Your task to perform on an android device: Clear the shopping cart on target.com. Search for "razer blade" on target.com, select the first entry, add it to the cart, then select checkout. Image 0: 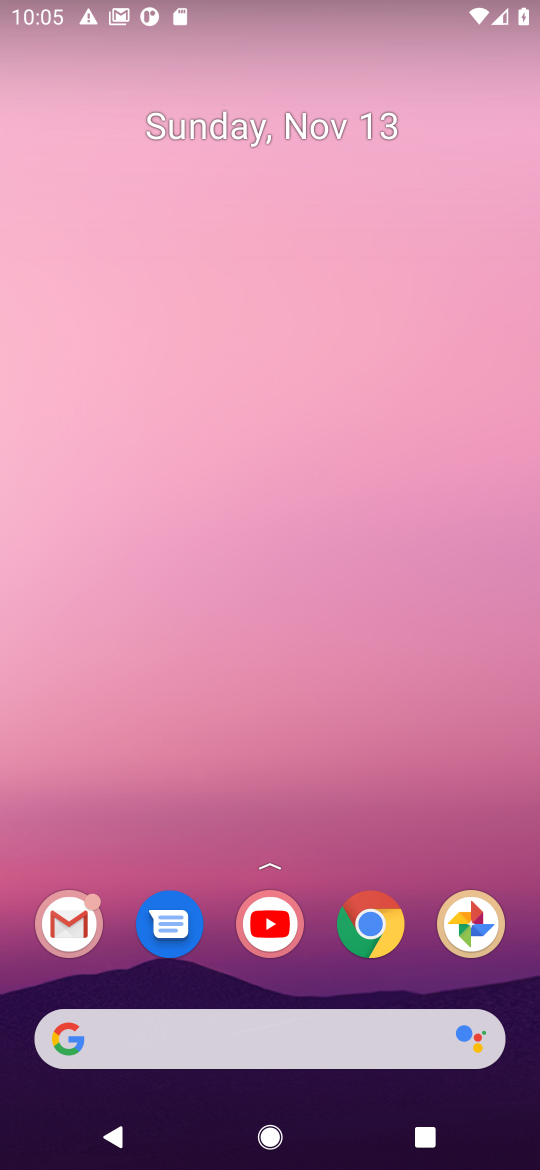
Step 0: click (377, 923)
Your task to perform on an android device: Clear the shopping cart on target.com. Search for "razer blade" on target.com, select the first entry, add it to the cart, then select checkout. Image 1: 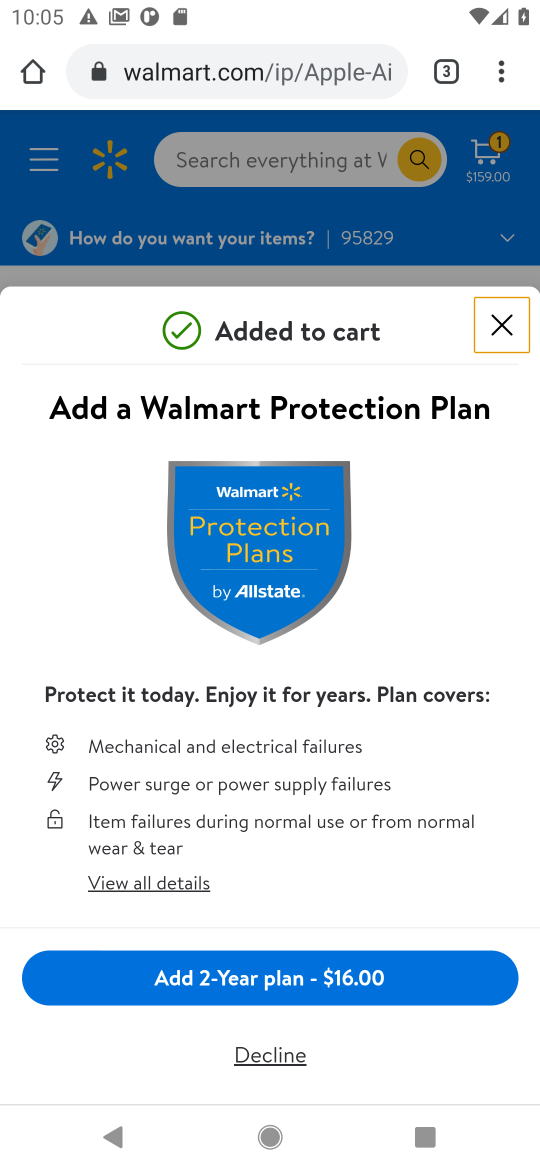
Step 1: click (281, 76)
Your task to perform on an android device: Clear the shopping cart on target.com. Search for "razer blade" on target.com, select the first entry, add it to the cart, then select checkout. Image 2: 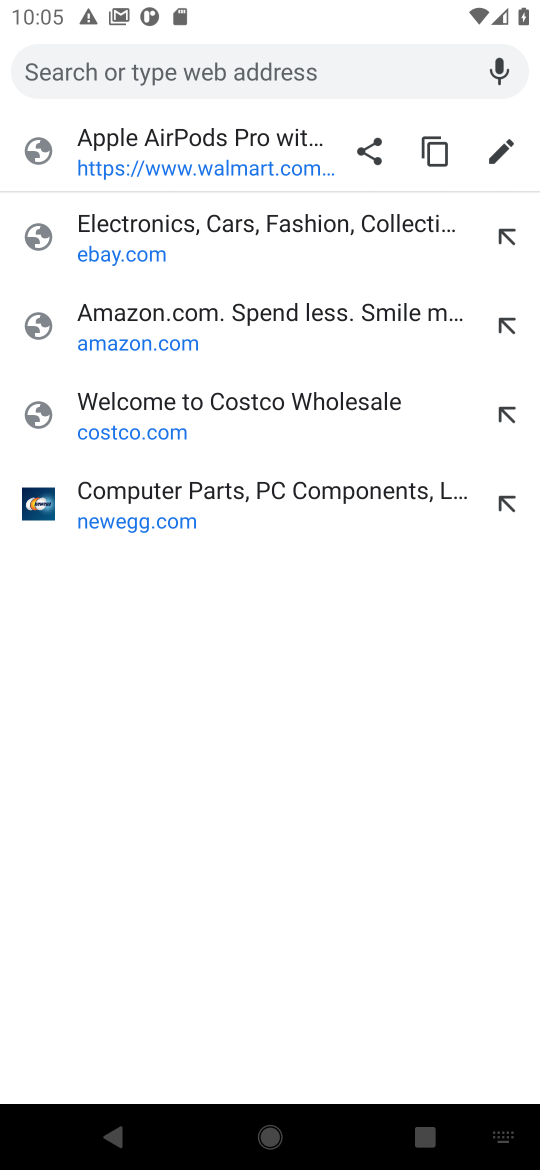
Step 2: type "target.com"
Your task to perform on an android device: Clear the shopping cart on target.com. Search for "razer blade" on target.com, select the first entry, add it to the cart, then select checkout. Image 3: 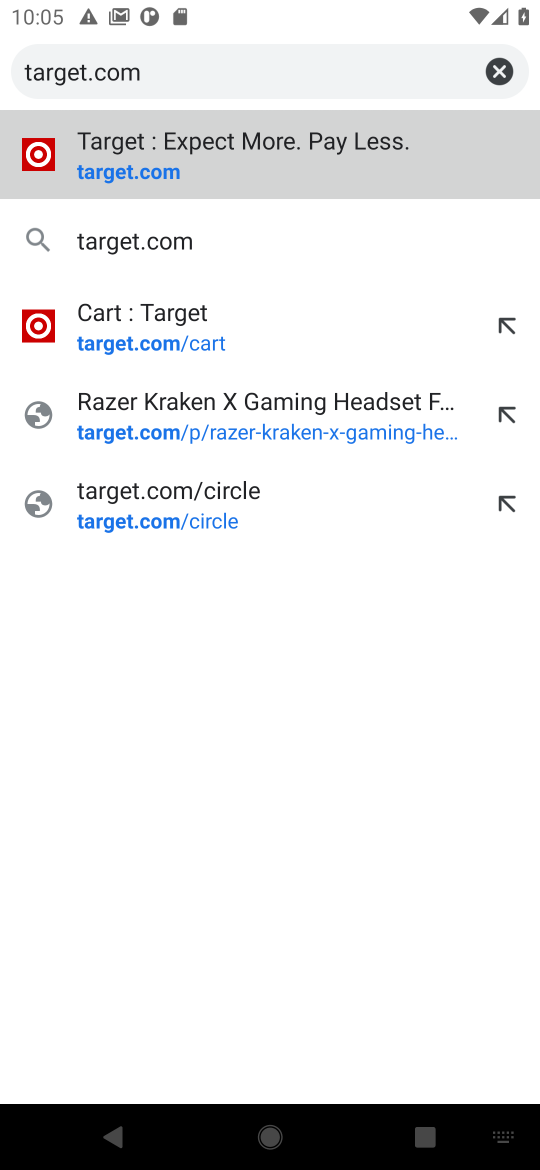
Step 3: click (109, 139)
Your task to perform on an android device: Clear the shopping cart on target.com. Search for "razer blade" on target.com, select the first entry, add it to the cart, then select checkout. Image 4: 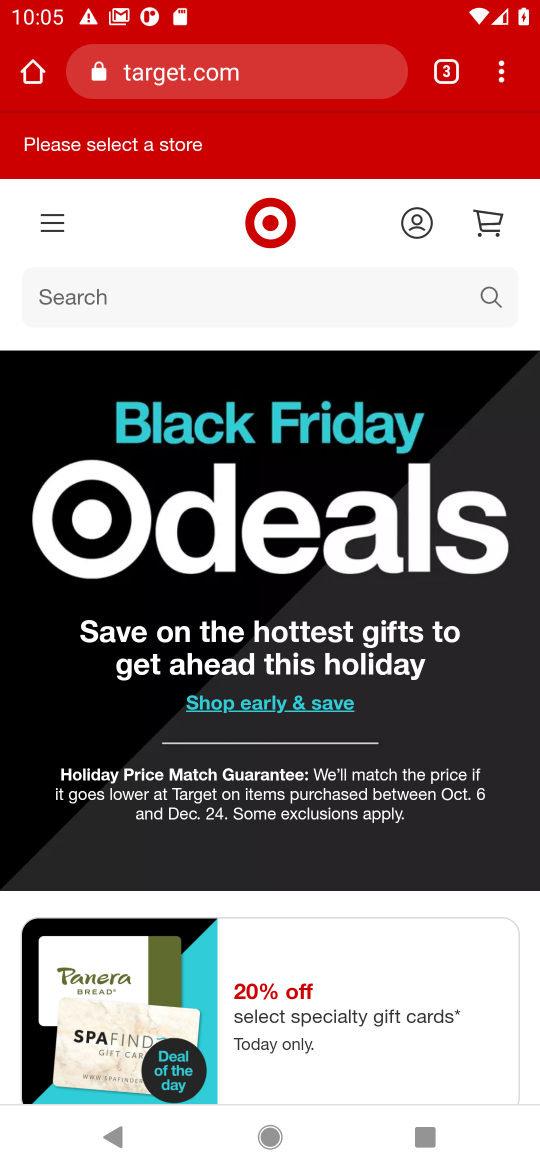
Step 4: click (481, 227)
Your task to perform on an android device: Clear the shopping cart on target.com. Search for "razer blade" on target.com, select the first entry, add it to the cart, then select checkout. Image 5: 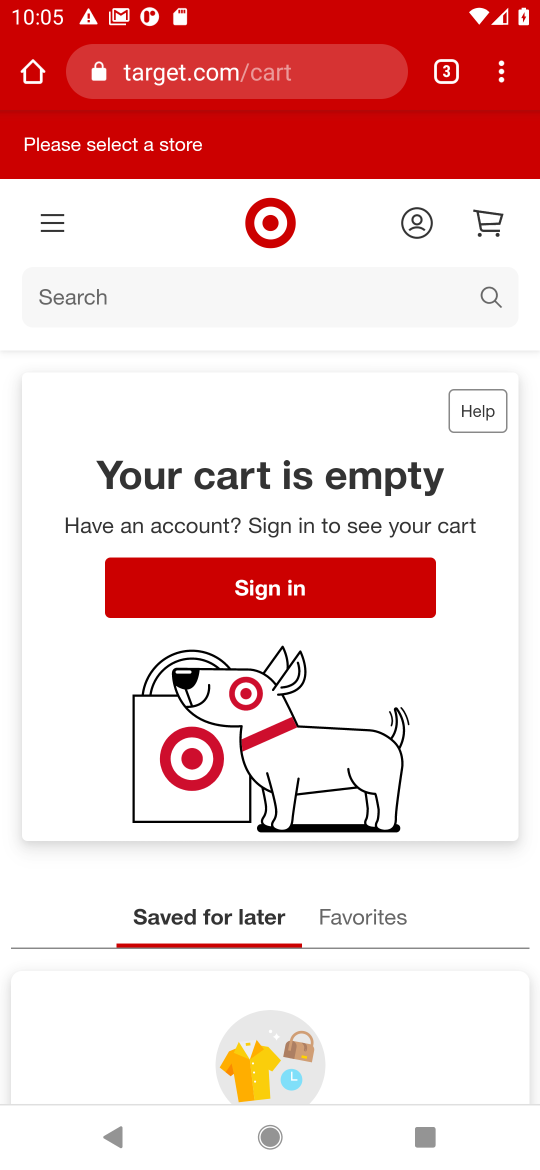
Step 5: click (489, 301)
Your task to perform on an android device: Clear the shopping cart on target.com. Search for "razer blade" on target.com, select the first entry, add it to the cart, then select checkout. Image 6: 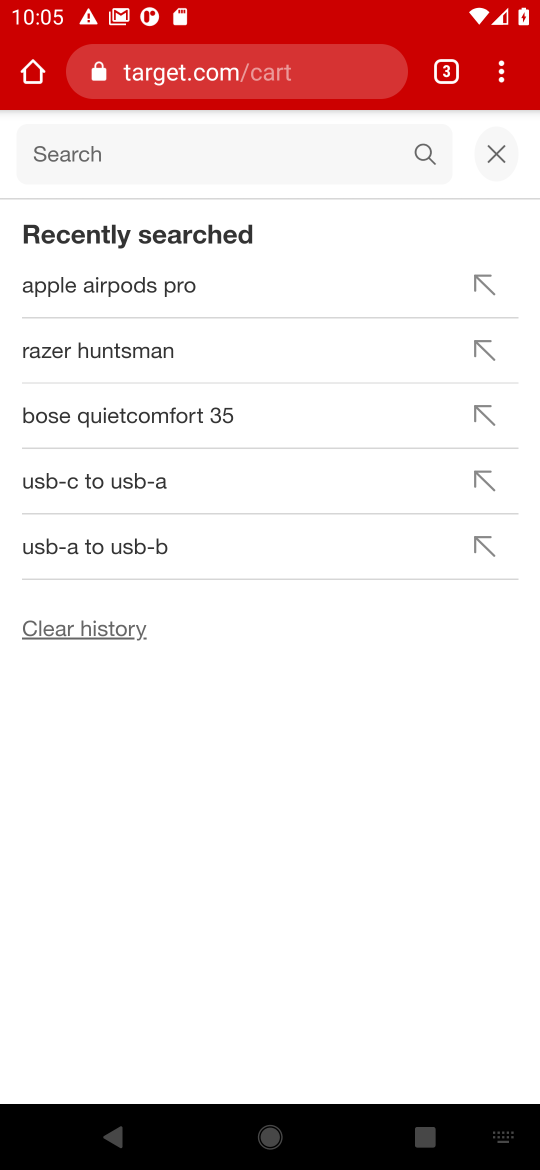
Step 6: type "razer blade"
Your task to perform on an android device: Clear the shopping cart on target.com. Search for "razer blade" on target.com, select the first entry, add it to the cart, then select checkout. Image 7: 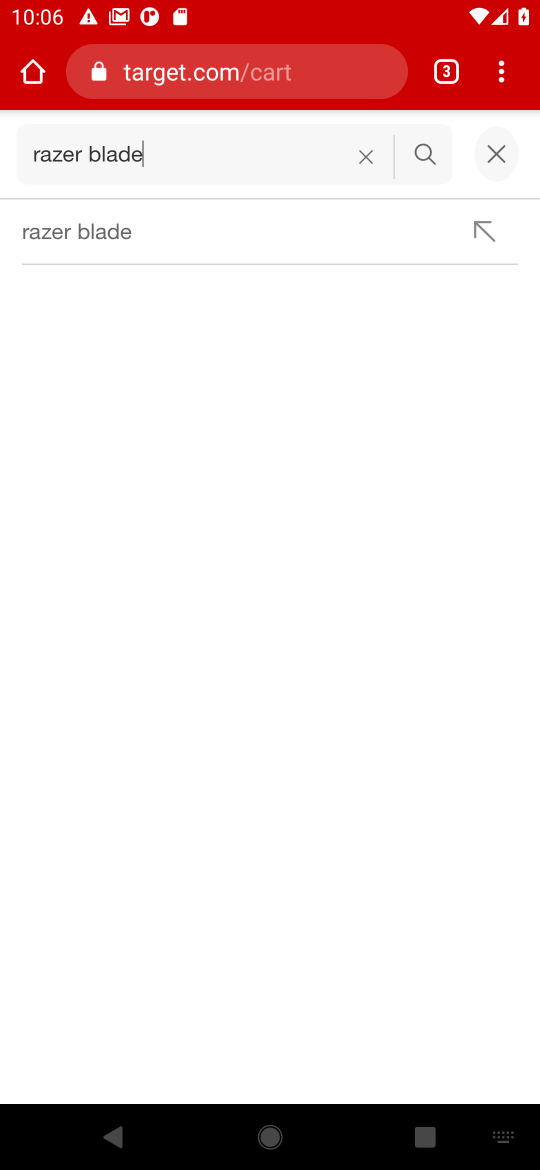
Step 7: click (91, 246)
Your task to perform on an android device: Clear the shopping cart on target.com. Search for "razer blade" on target.com, select the first entry, add it to the cart, then select checkout. Image 8: 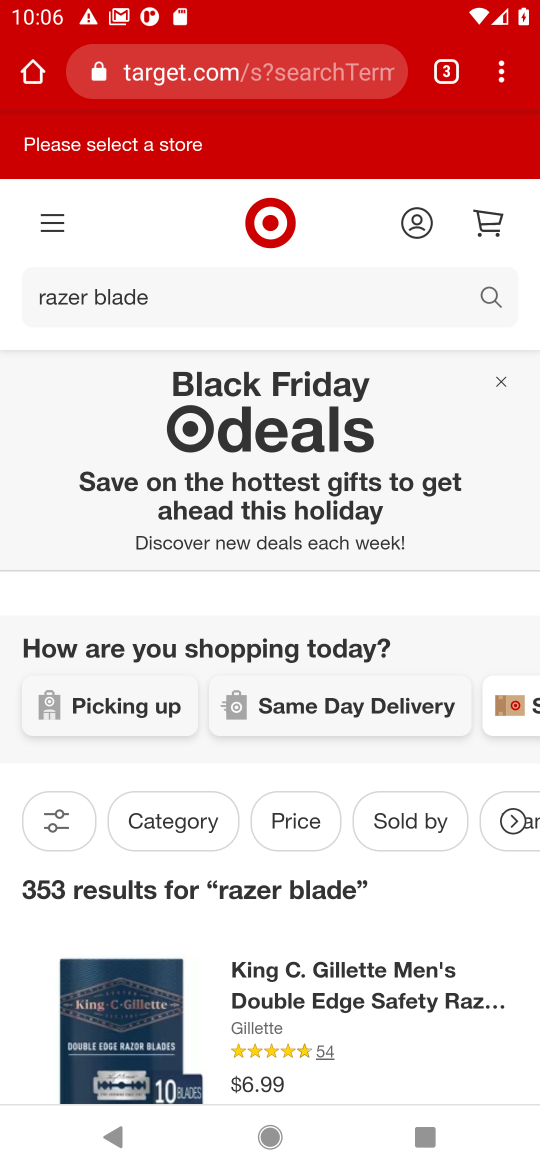
Step 8: task complete